Your task to perform on an android device: Go to CNN.com Image 0: 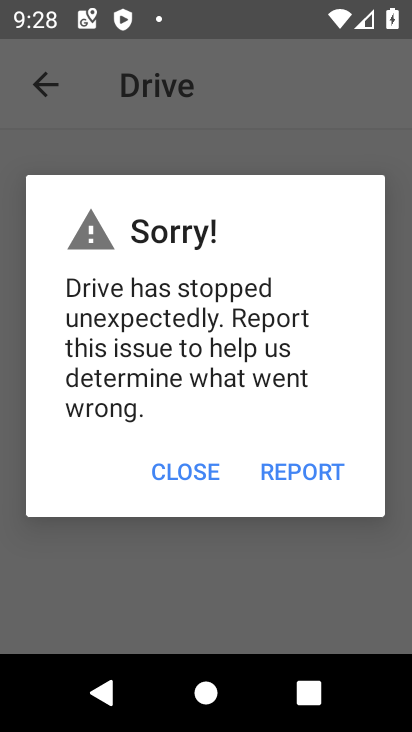
Step 0: press home button
Your task to perform on an android device: Go to CNN.com Image 1: 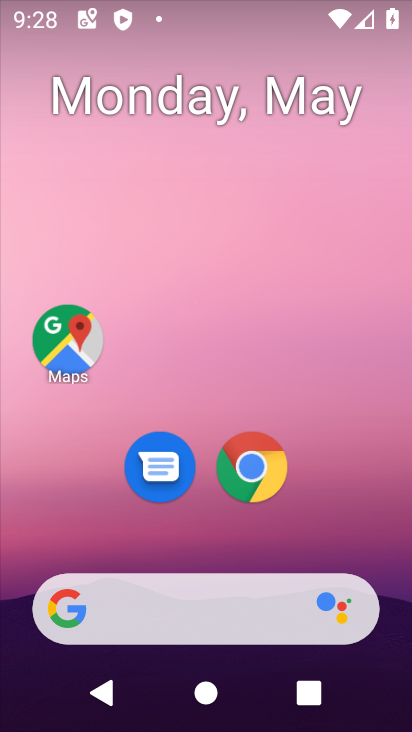
Step 1: click (268, 469)
Your task to perform on an android device: Go to CNN.com Image 2: 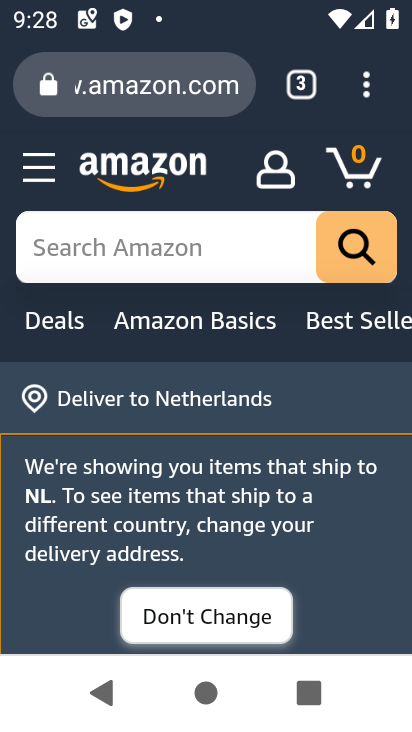
Step 2: click (152, 99)
Your task to perform on an android device: Go to CNN.com Image 3: 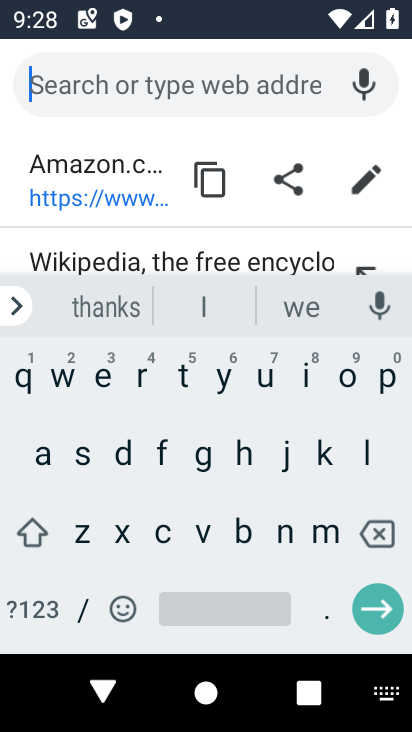
Step 3: click (156, 528)
Your task to perform on an android device: Go to CNN.com Image 4: 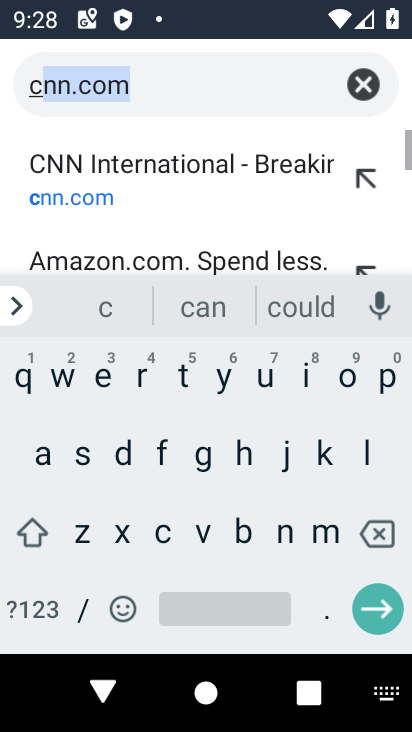
Step 4: click (285, 534)
Your task to perform on an android device: Go to CNN.com Image 5: 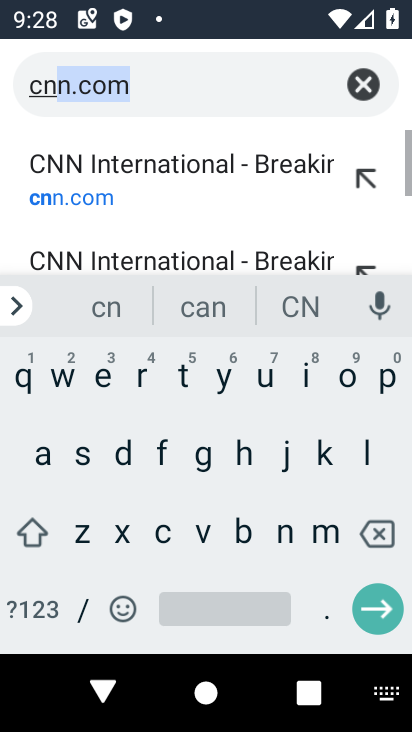
Step 5: click (177, 77)
Your task to perform on an android device: Go to CNN.com Image 6: 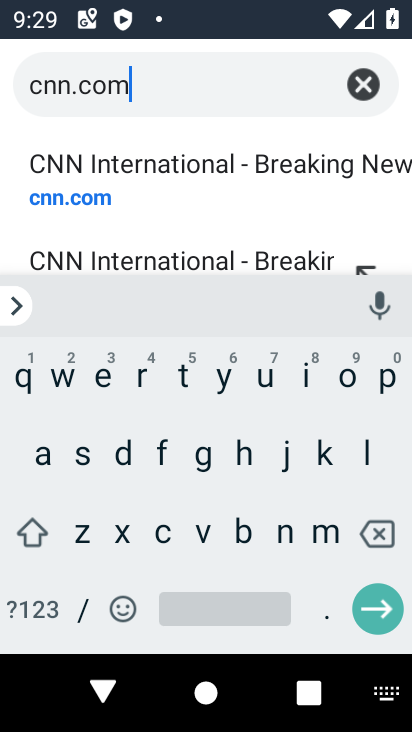
Step 6: click (398, 609)
Your task to perform on an android device: Go to CNN.com Image 7: 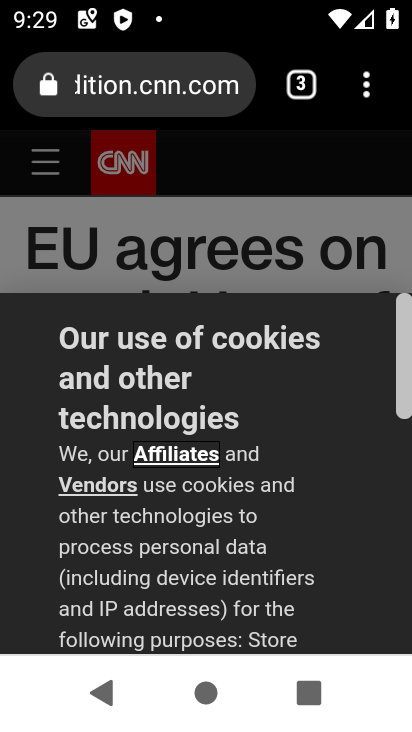
Step 7: task complete